Your task to perform on an android device: What's on my calendar tomorrow? Image 0: 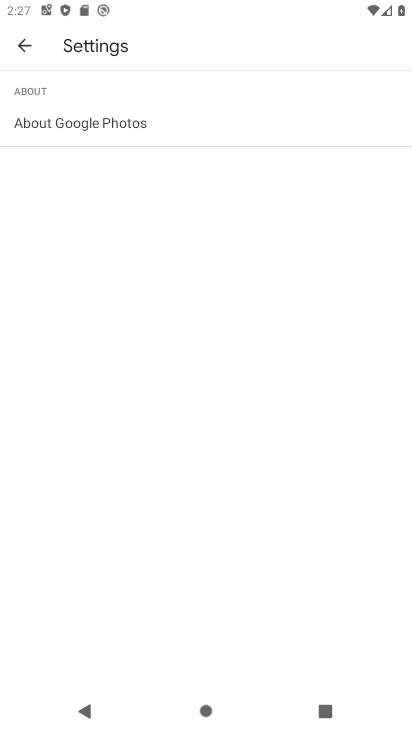
Step 0: press back button
Your task to perform on an android device: What's on my calendar tomorrow? Image 1: 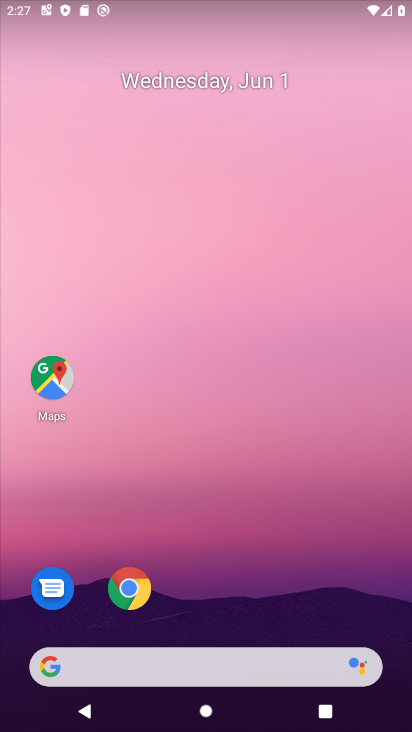
Step 1: drag from (195, 539) to (195, 106)
Your task to perform on an android device: What's on my calendar tomorrow? Image 2: 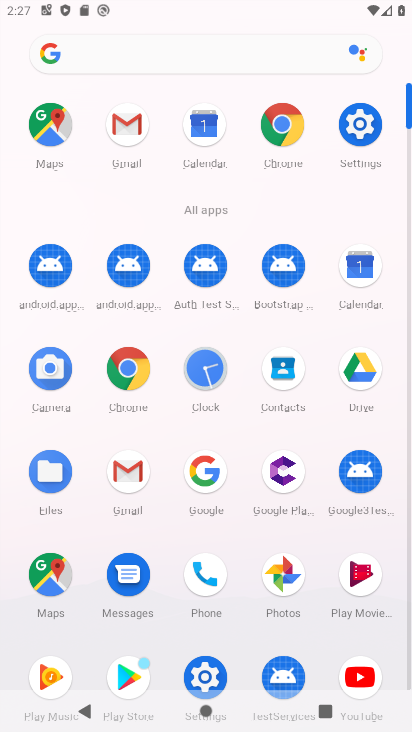
Step 2: click (352, 270)
Your task to perform on an android device: What's on my calendar tomorrow? Image 3: 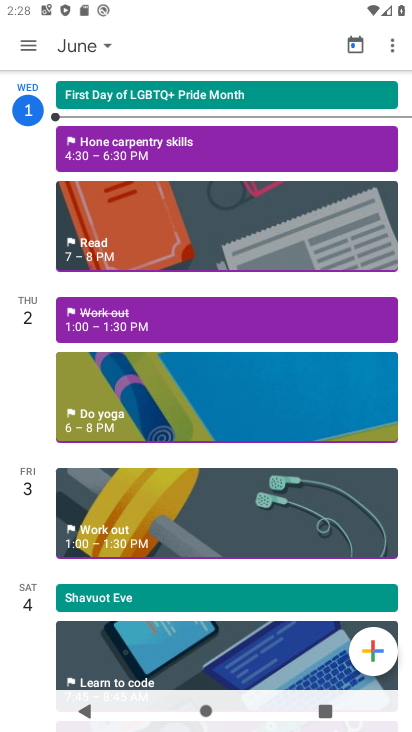
Step 3: click (121, 397)
Your task to perform on an android device: What's on my calendar tomorrow? Image 4: 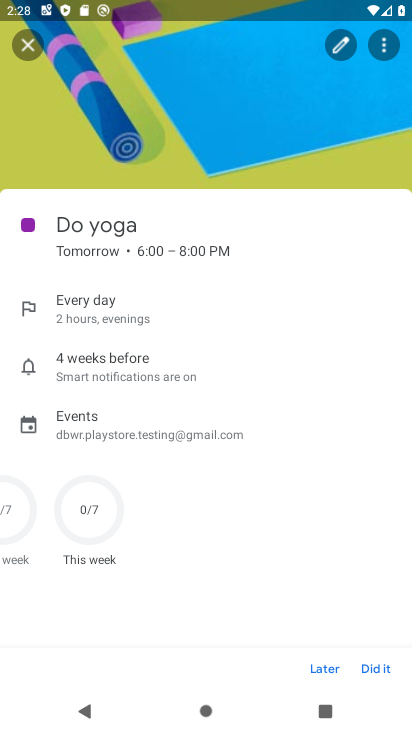
Step 4: task complete